Your task to perform on an android device: Open location settings Image 0: 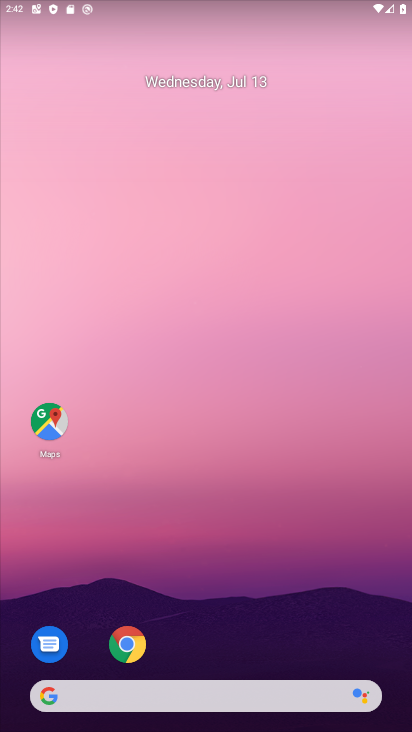
Step 0: drag from (322, 637) to (293, 164)
Your task to perform on an android device: Open location settings Image 1: 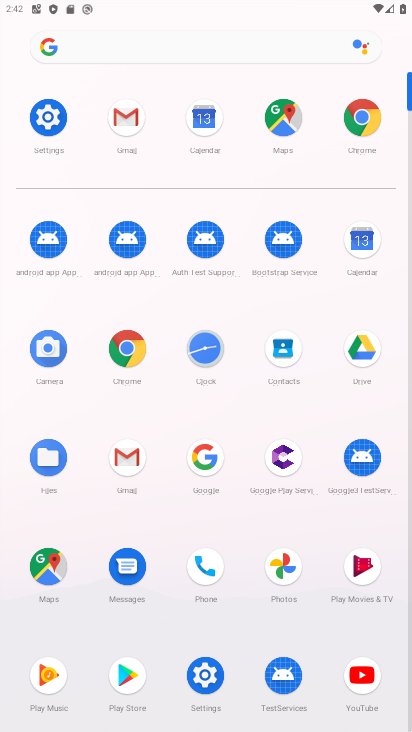
Step 1: click (56, 123)
Your task to perform on an android device: Open location settings Image 2: 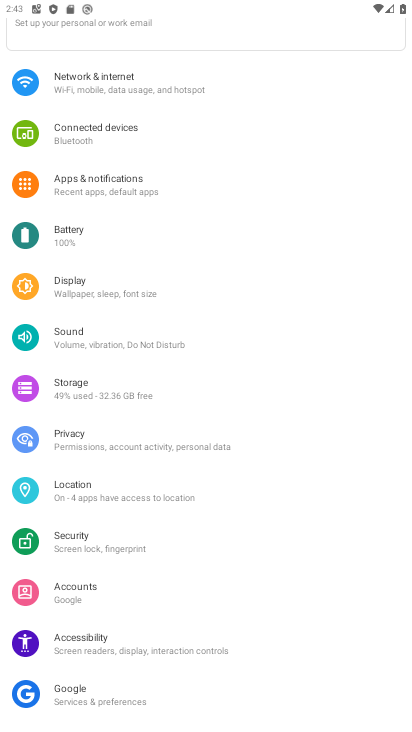
Step 2: click (119, 488)
Your task to perform on an android device: Open location settings Image 3: 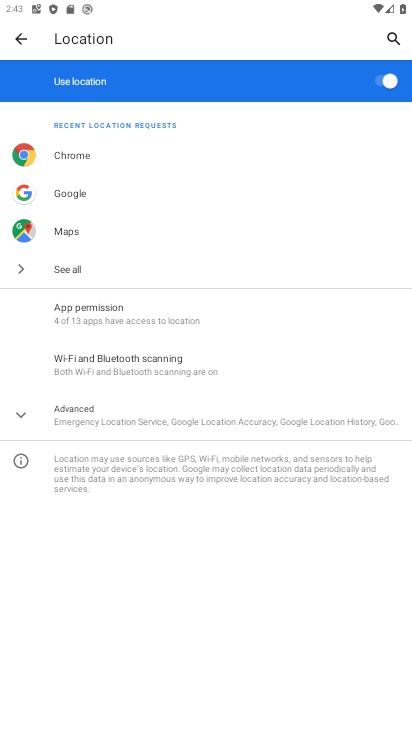
Step 3: task complete